Your task to perform on an android device: Open the phone app and click the voicemail tab. Image 0: 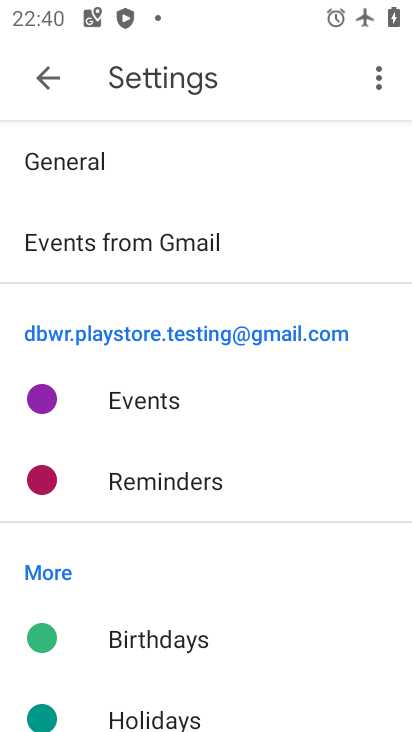
Step 0: press home button
Your task to perform on an android device: Open the phone app and click the voicemail tab. Image 1: 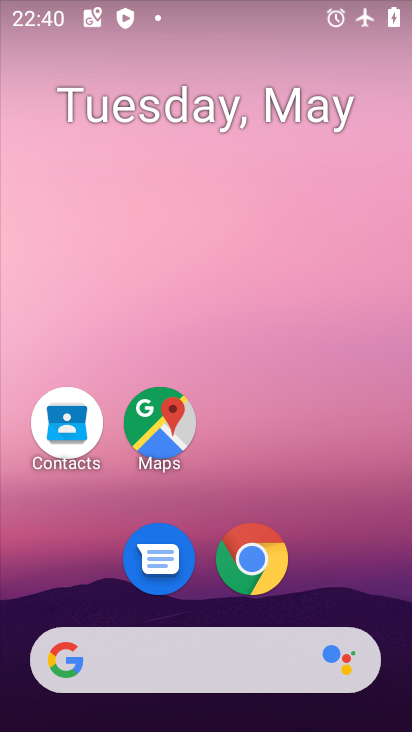
Step 1: drag from (324, 527) to (284, 1)
Your task to perform on an android device: Open the phone app and click the voicemail tab. Image 2: 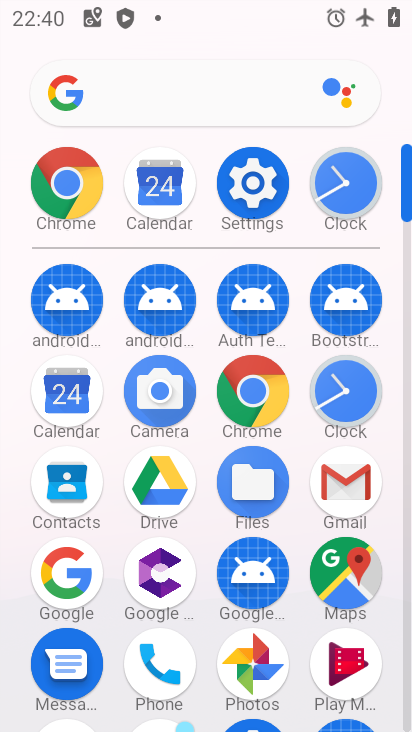
Step 2: click (145, 672)
Your task to perform on an android device: Open the phone app and click the voicemail tab. Image 3: 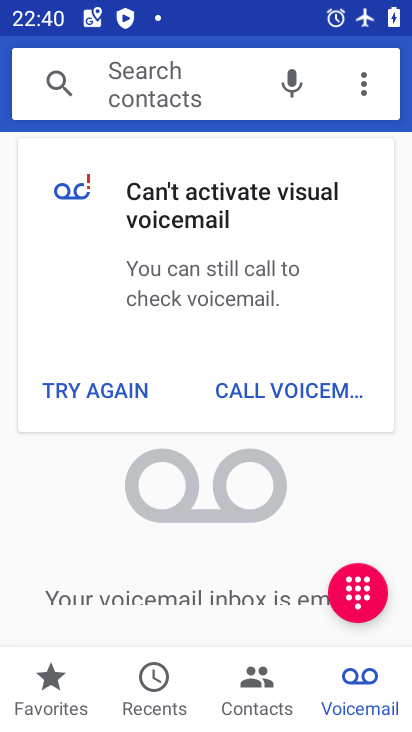
Step 3: click (373, 695)
Your task to perform on an android device: Open the phone app and click the voicemail tab. Image 4: 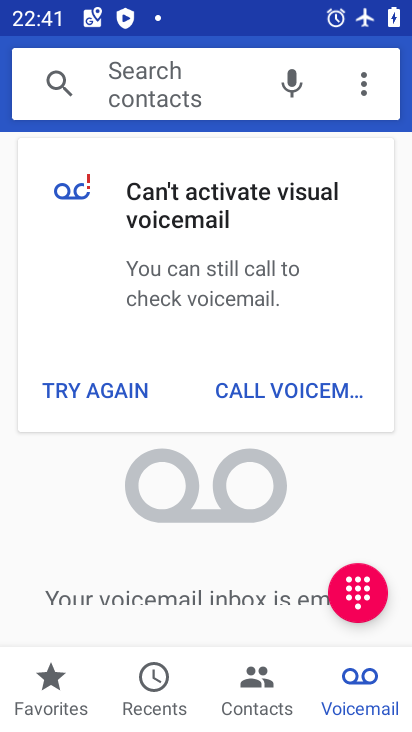
Step 4: task complete